Your task to perform on an android device: turn off translation in the chrome app Image 0: 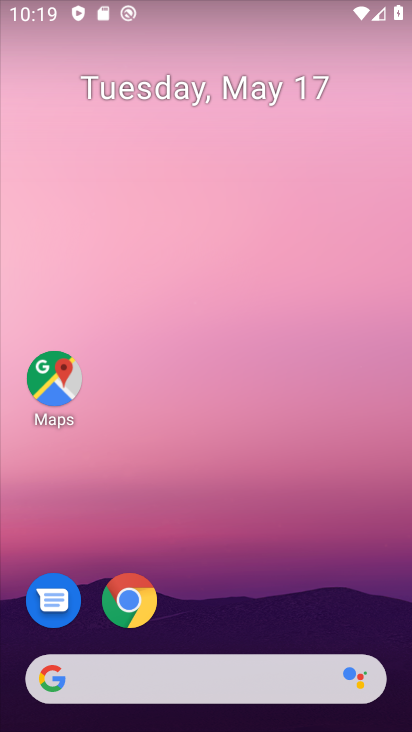
Step 0: click (121, 588)
Your task to perform on an android device: turn off translation in the chrome app Image 1: 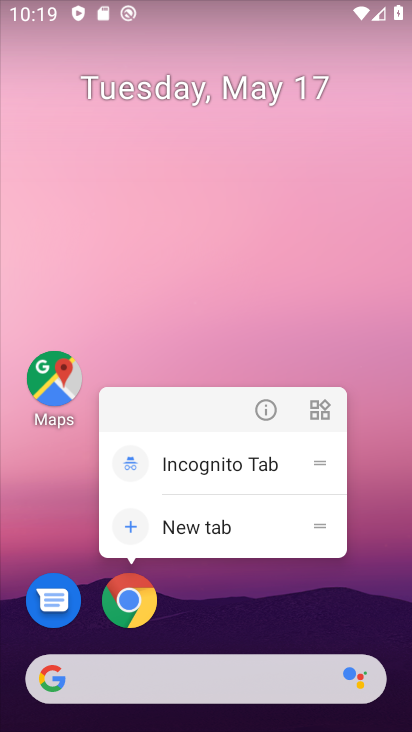
Step 1: click (136, 598)
Your task to perform on an android device: turn off translation in the chrome app Image 2: 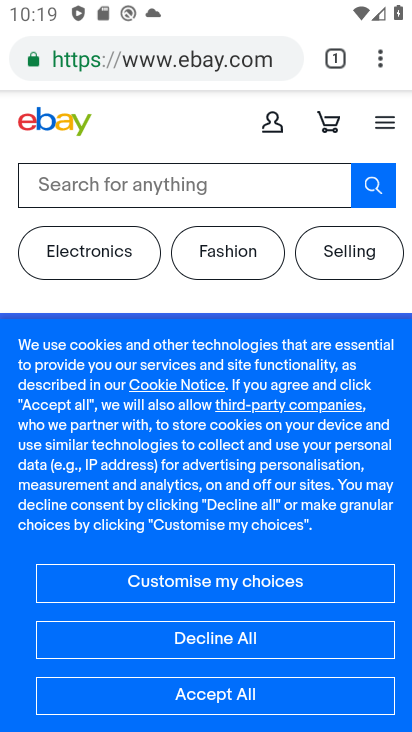
Step 2: click (381, 59)
Your task to perform on an android device: turn off translation in the chrome app Image 3: 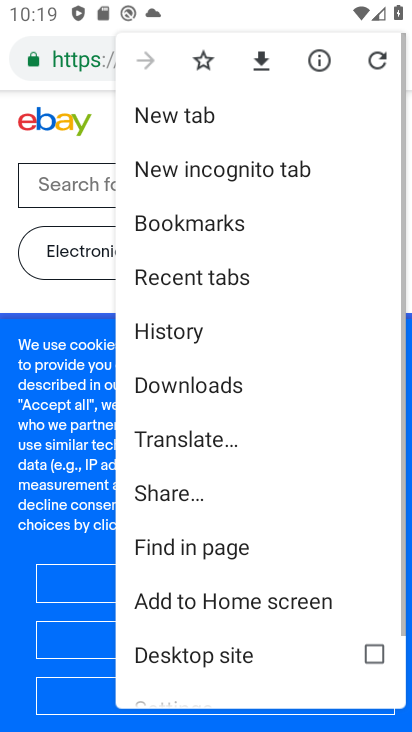
Step 3: drag from (208, 623) to (249, 50)
Your task to perform on an android device: turn off translation in the chrome app Image 4: 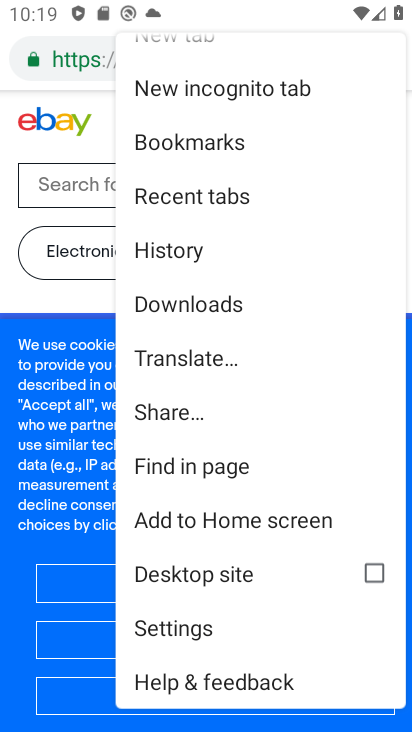
Step 4: click (179, 620)
Your task to perform on an android device: turn off translation in the chrome app Image 5: 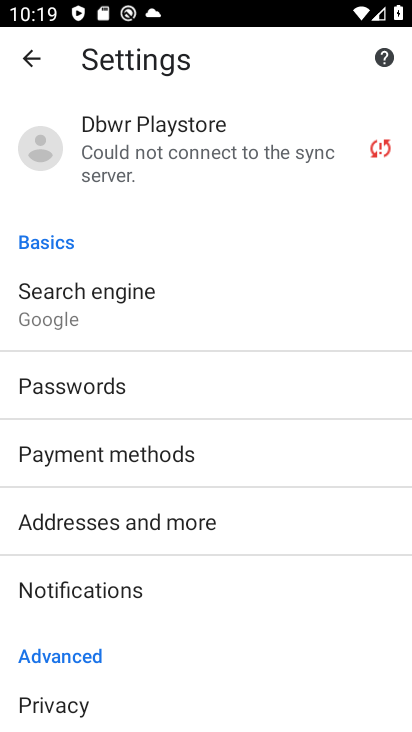
Step 5: drag from (161, 616) to (236, 102)
Your task to perform on an android device: turn off translation in the chrome app Image 6: 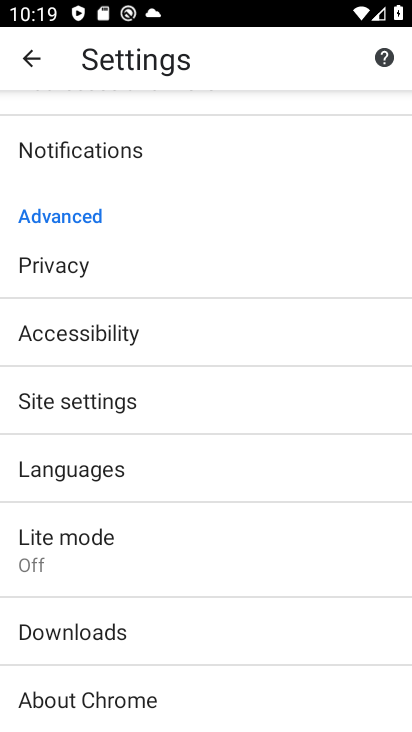
Step 6: click (148, 474)
Your task to perform on an android device: turn off translation in the chrome app Image 7: 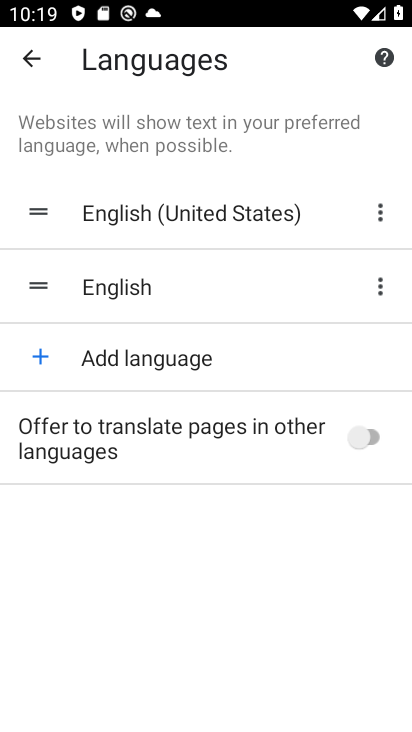
Step 7: task complete